Your task to perform on an android device: add a label to a message in the gmail app Image 0: 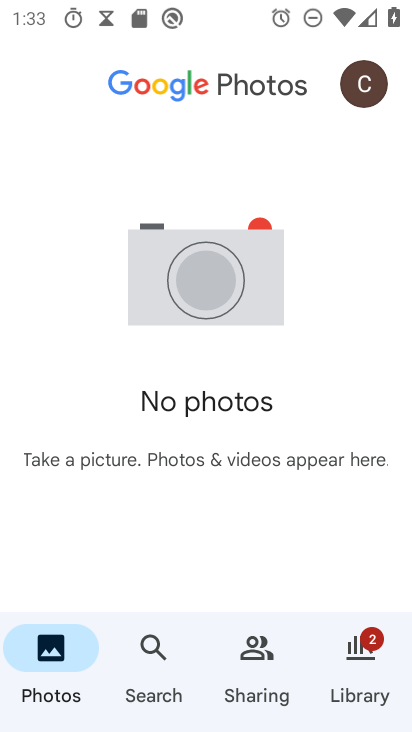
Step 0: press home button
Your task to perform on an android device: add a label to a message in the gmail app Image 1: 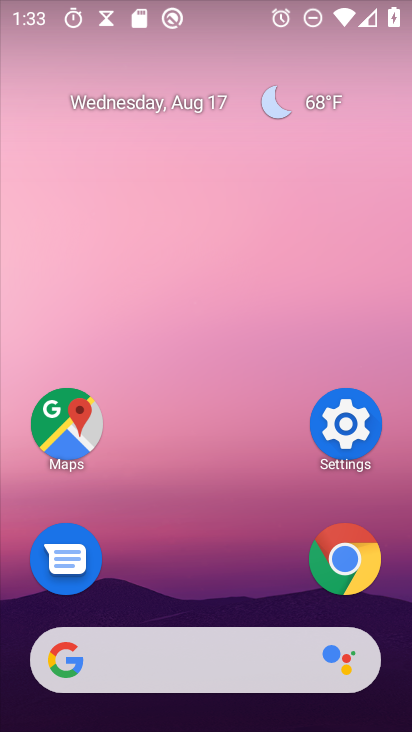
Step 1: drag from (181, 626) to (296, 65)
Your task to perform on an android device: add a label to a message in the gmail app Image 2: 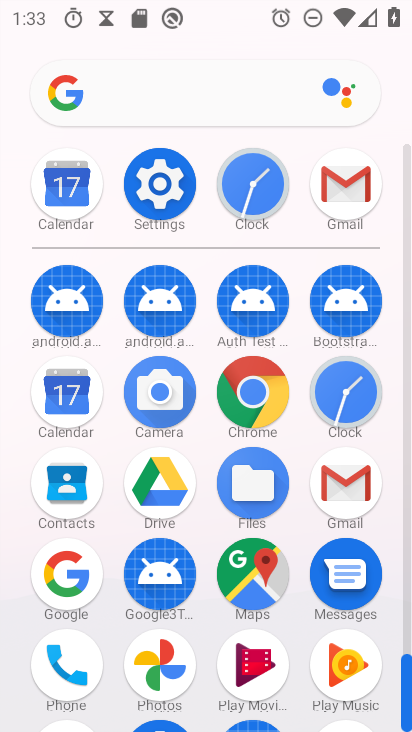
Step 2: click (362, 176)
Your task to perform on an android device: add a label to a message in the gmail app Image 3: 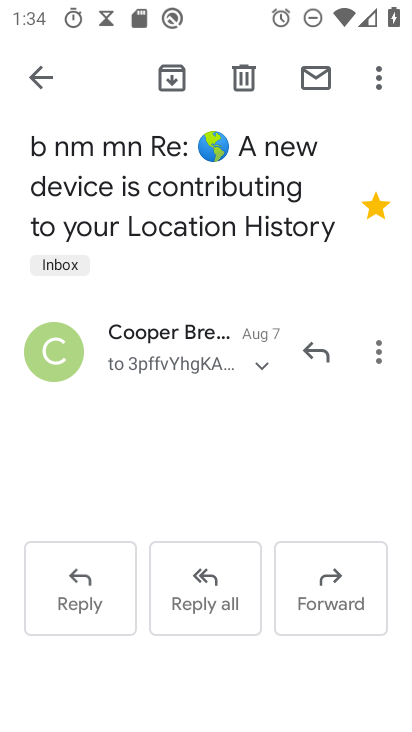
Step 3: press back button
Your task to perform on an android device: add a label to a message in the gmail app Image 4: 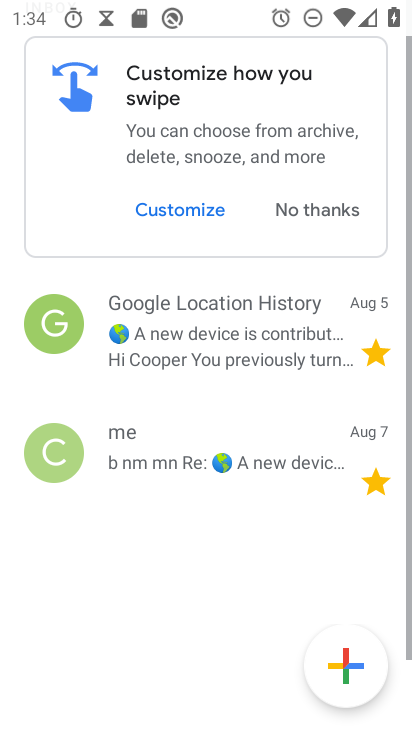
Step 4: drag from (145, 124) to (106, 500)
Your task to perform on an android device: add a label to a message in the gmail app Image 5: 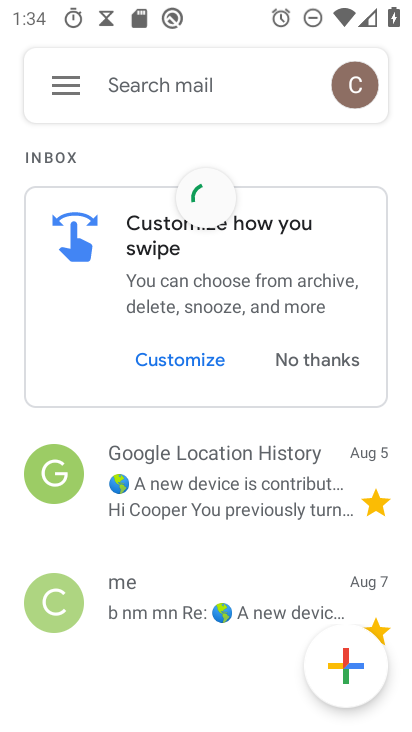
Step 5: click (57, 89)
Your task to perform on an android device: add a label to a message in the gmail app Image 6: 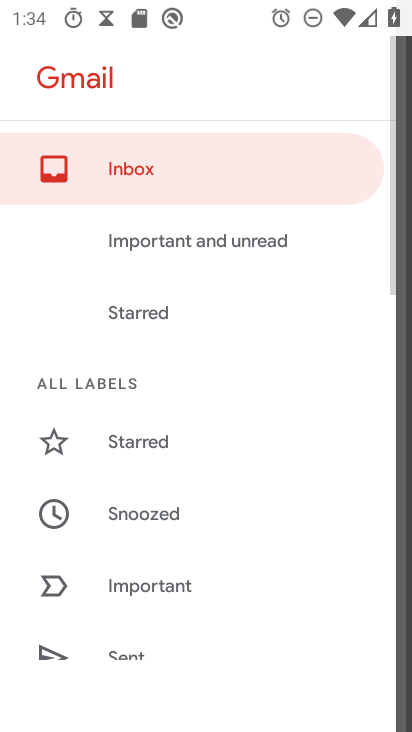
Step 6: click (159, 581)
Your task to perform on an android device: add a label to a message in the gmail app Image 7: 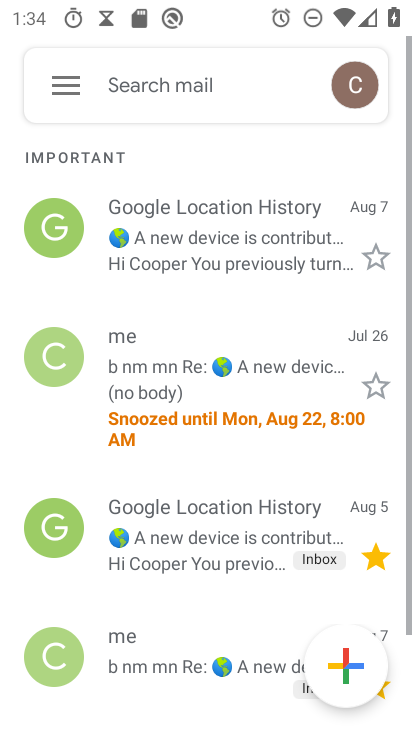
Step 7: click (189, 239)
Your task to perform on an android device: add a label to a message in the gmail app Image 8: 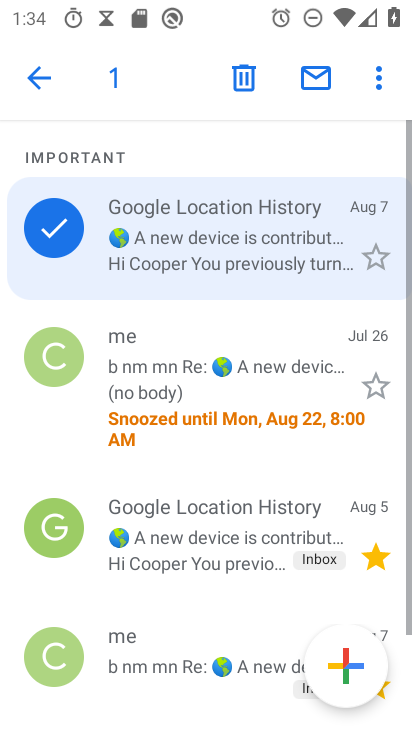
Step 8: click (189, 237)
Your task to perform on an android device: add a label to a message in the gmail app Image 9: 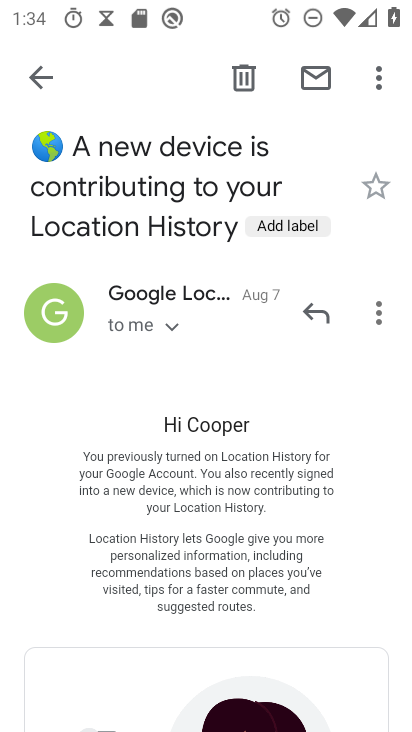
Step 9: click (295, 224)
Your task to perform on an android device: add a label to a message in the gmail app Image 10: 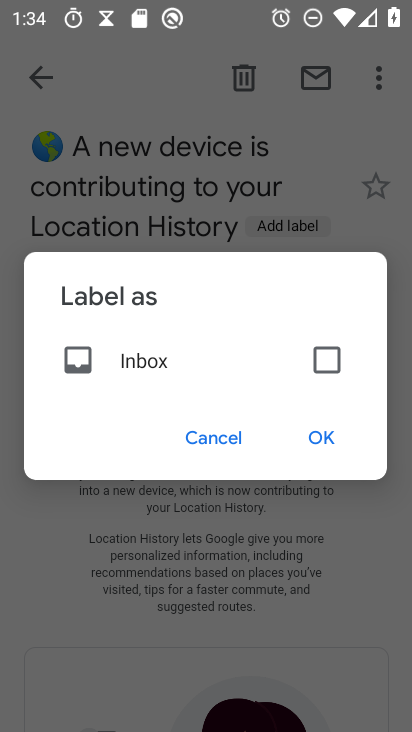
Step 10: click (320, 356)
Your task to perform on an android device: add a label to a message in the gmail app Image 11: 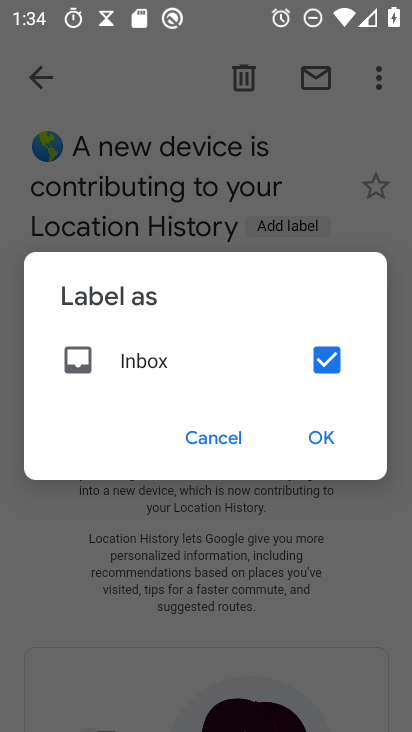
Step 11: click (308, 430)
Your task to perform on an android device: add a label to a message in the gmail app Image 12: 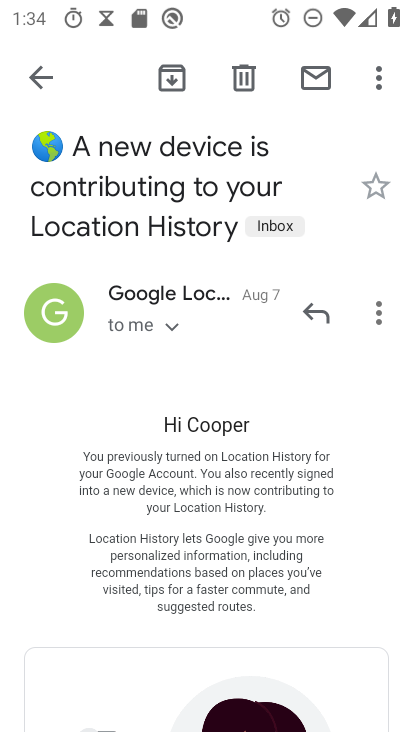
Step 12: task complete